Your task to perform on an android device: Check the news Image 0: 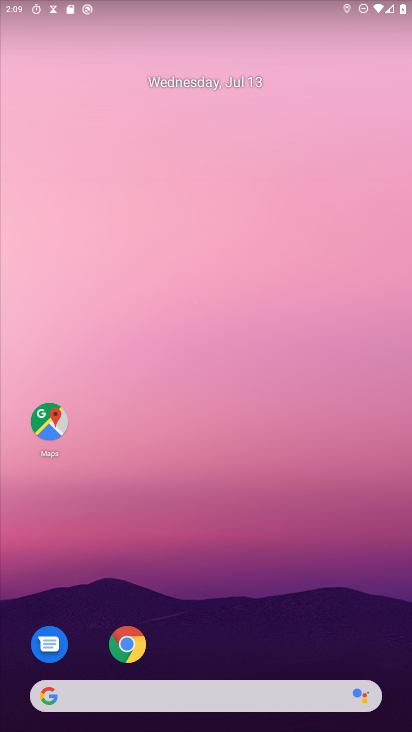
Step 0: press home button
Your task to perform on an android device: Check the news Image 1: 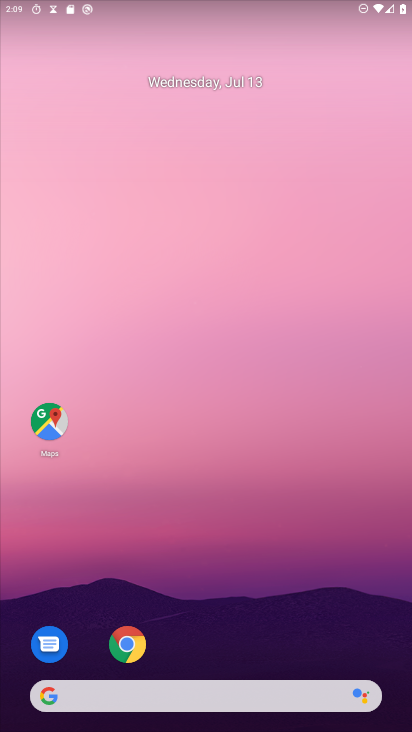
Step 1: click (241, 699)
Your task to perform on an android device: Check the news Image 2: 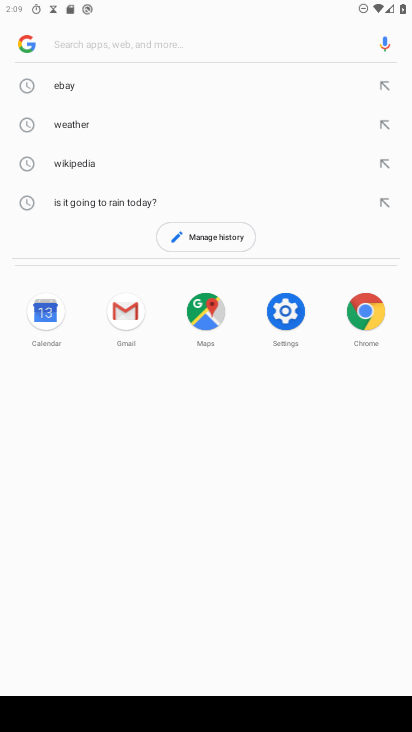
Step 2: type "news"
Your task to perform on an android device: Check the news Image 3: 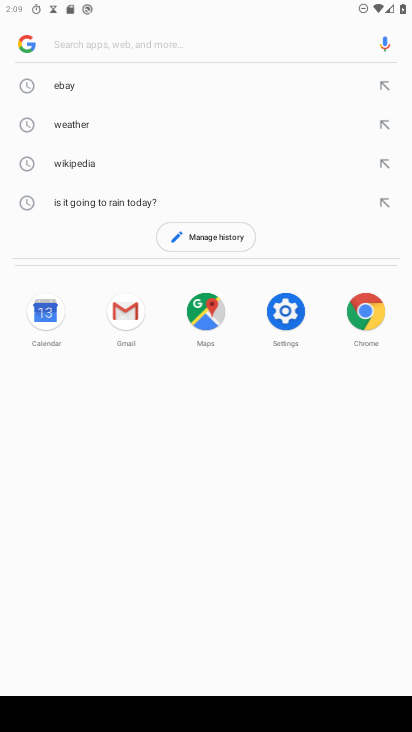
Step 3: click (81, 42)
Your task to perform on an android device: Check the news Image 4: 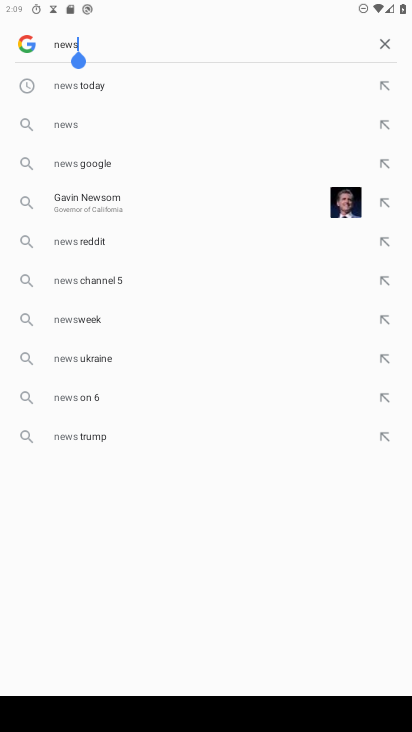
Step 4: press enter
Your task to perform on an android device: Check the news Image 5: 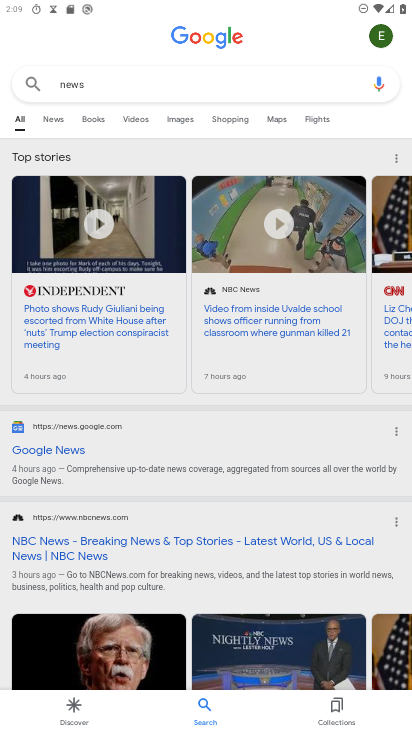
Step 5: task complete